Your task to perform on an android device: turn off data saver in the chrome app Image 0: 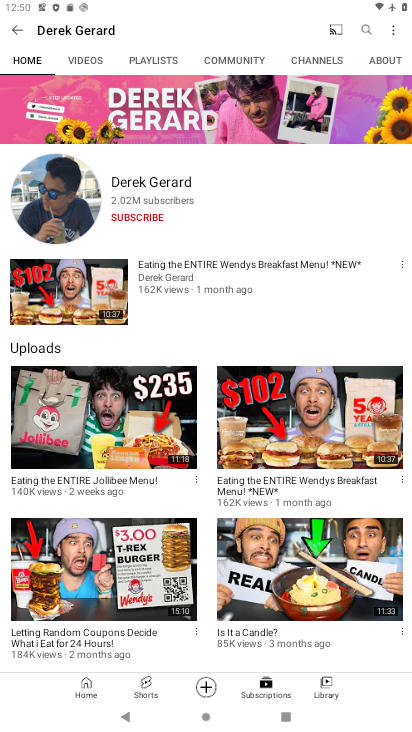
Step 0: press back button
Your task to perform on an android device: turn off data saver in the chrome app Image 1: 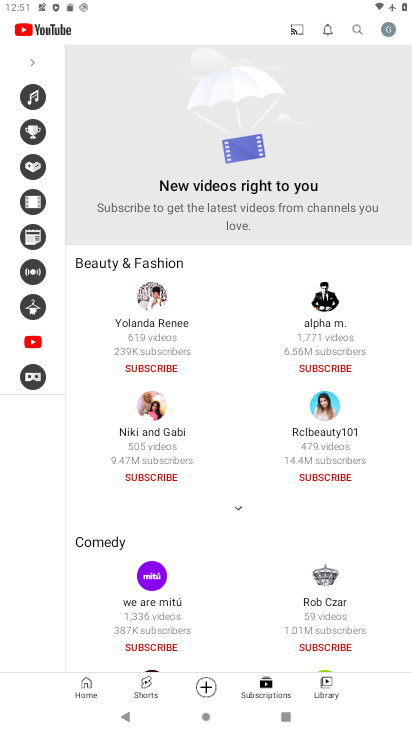
Step 1: press back button
Your task to perform on an android device: turn off data saver in the chrome app Image 2: 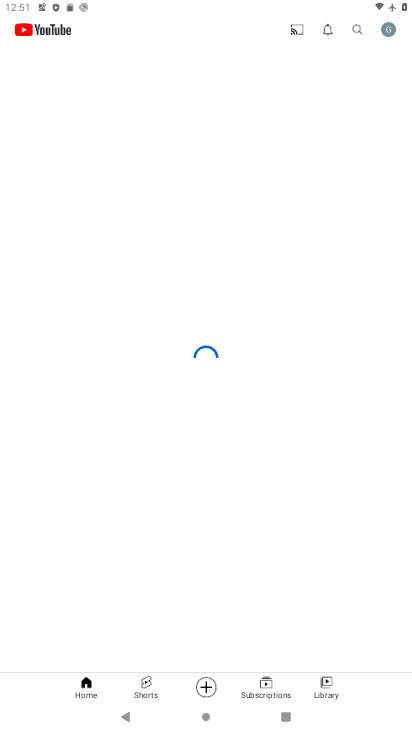
Step 2: press back button
Your task to perform on an android device: turn off data saver in the chrome app Image 3: 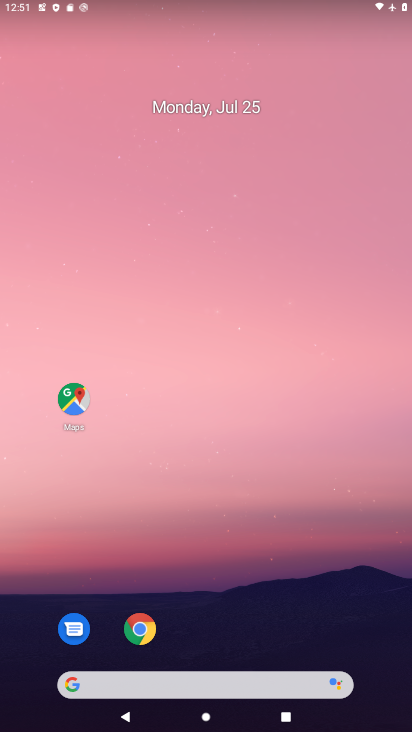
Step 3: click (136, 626)
Your task to perform on an android device: turn off data saver in the chrome app Image 4: 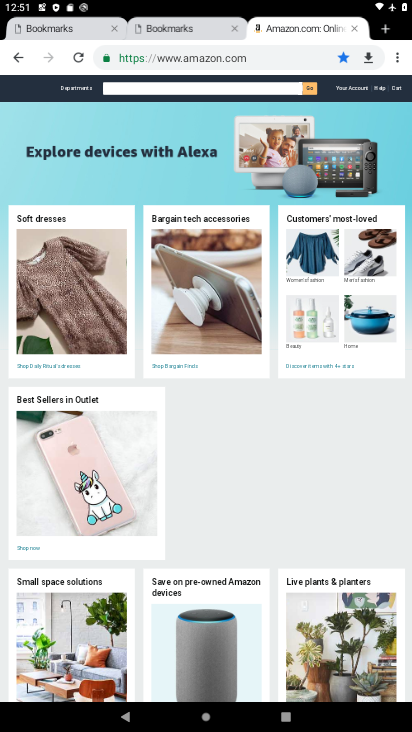
Step 4: click (400, 46)
Your task to perform on an android device: turn off data saver in the chrome app Image 5: 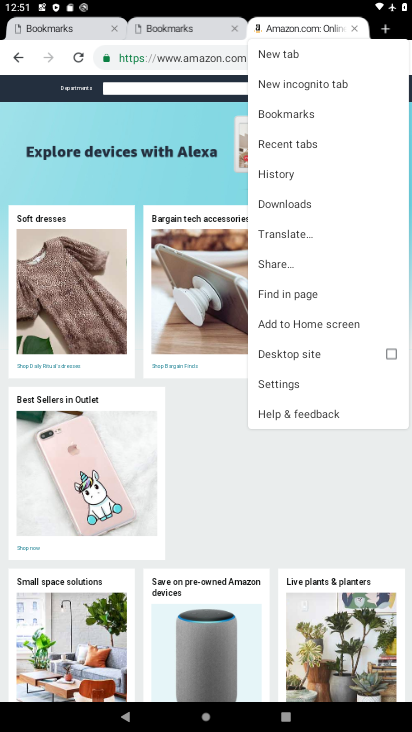
Step 5: click (283, 385)
Your task to perform on an android device: turn off data saver in the chrome app Image 6: 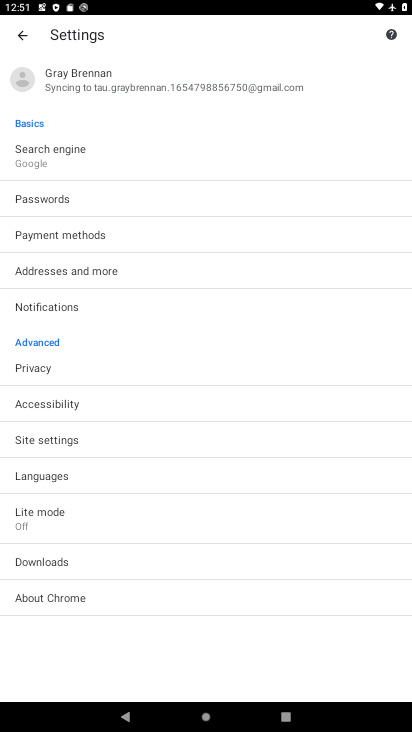
Step 6: click (175, 505)
Your task to perform on an android device: turn off data saver in the chrome app Image 7: 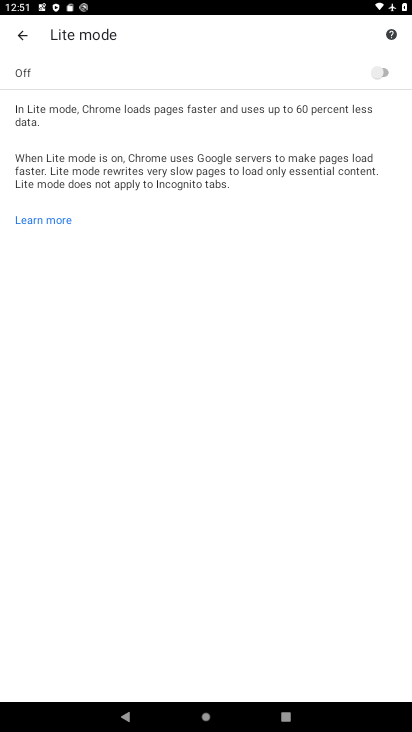
Step 7: task complete